Your task to perform on an android device: Go to privacy settings Image 0: 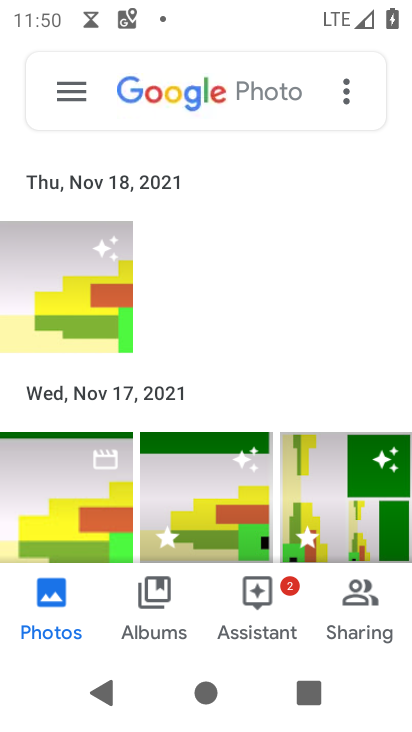
Step 0: press home button
Your task to perform on an android device: Go to privacy settings Image 1: 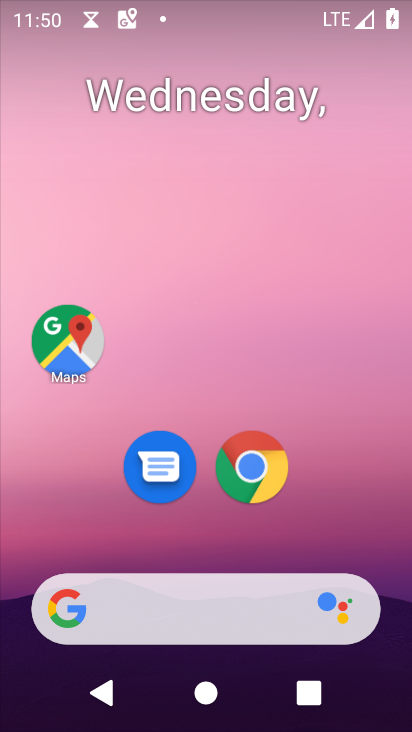
Step 1: drag from (208, 574) to (310, 176)
Your task to perform on an android device: Go to privacy settings Image 2: 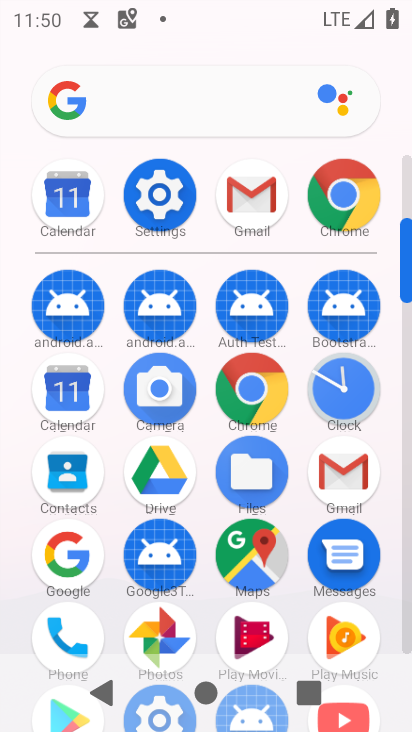
Step 2: click (144, 200)
Your task to perform on an android device: Go to privacy settings Image 3: 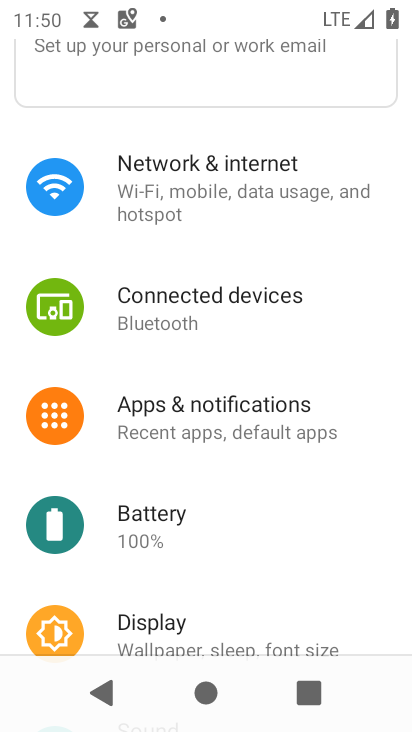
Step 3: drag from (221, 515) to (350, 116)
Your task to perform on an android device: Go to privacy settings Image 4: 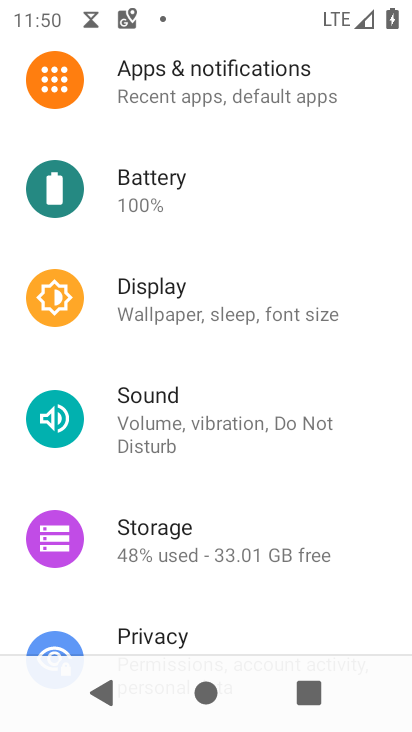
Step 4: click (164, 627)
Your task to perform on an android device: Go to privacy settings Image 5: 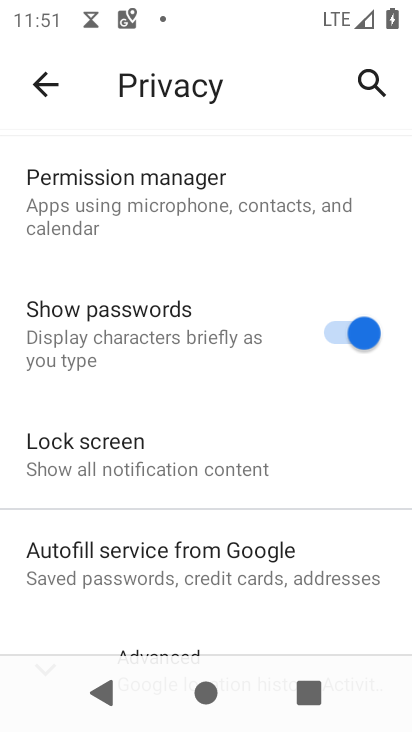
Step 5: task complete